Your task to perform on an android device: open app "Facebook" (install if not already installed), go to login, and select forgot password Image 0: 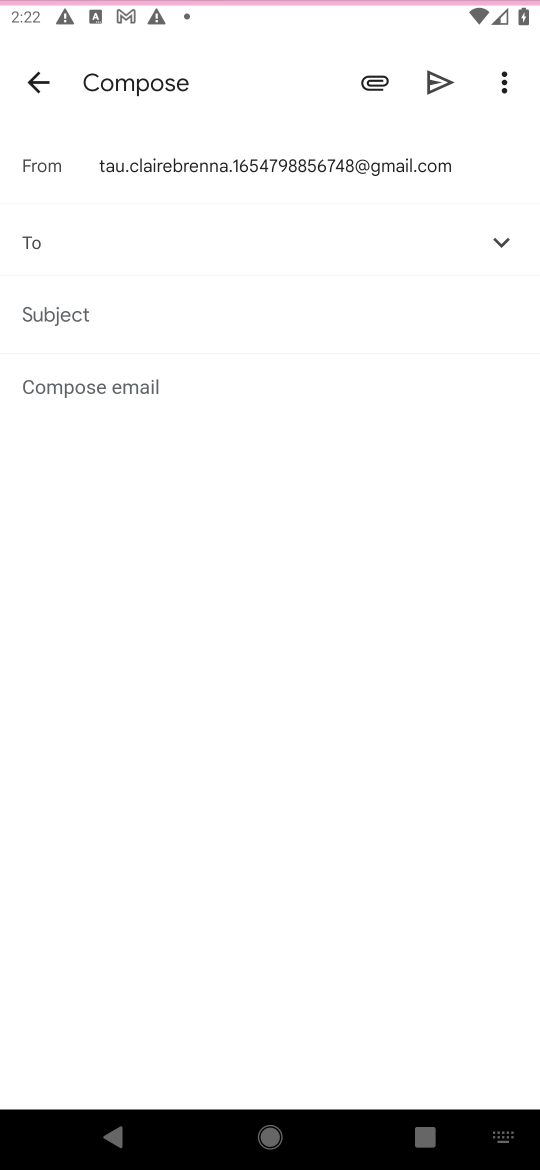
Step 0: press home button
Your task to perform on an android device: open app "Facebook" (install if not already installed), go to login, and select forgot password Image 1: 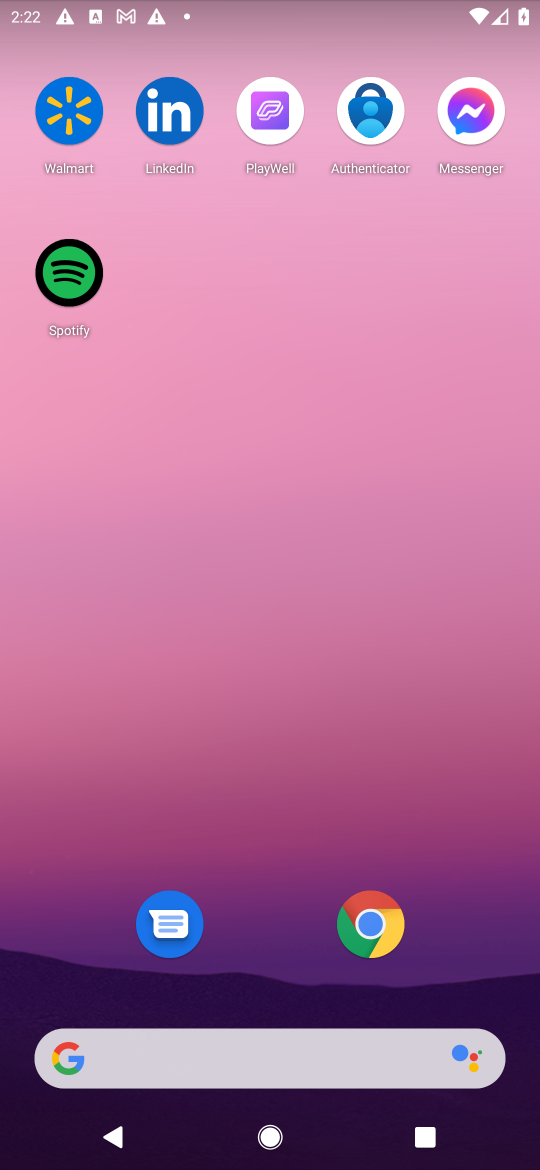
Step 1: drag from (466, 960) to (473, 193)
Your task to perform on an android device: open app "Facebook" (install if not already installed), go to login, and select forgot password Image 2: 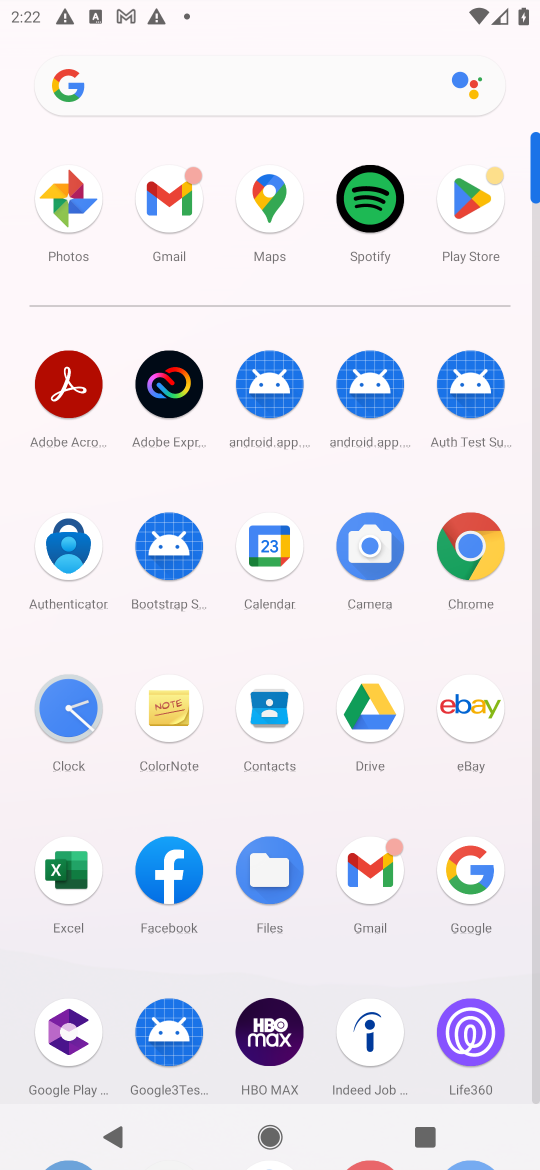
Step 2: click (467, 193)
Your task to perform on an android device: open app "Facebook" (install if not already installed), go to login, and select forgot password Image 3: 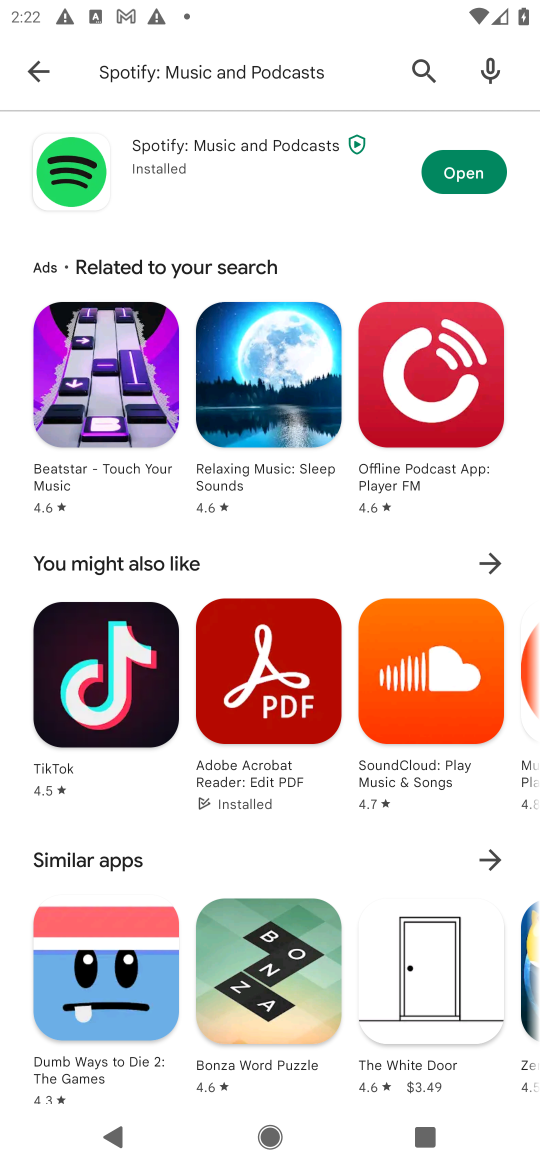
Step 3: press back button
Your task to perform on an android device: open app "Facebook" (install if not already installed), go to login, and select forgot password Image 4: 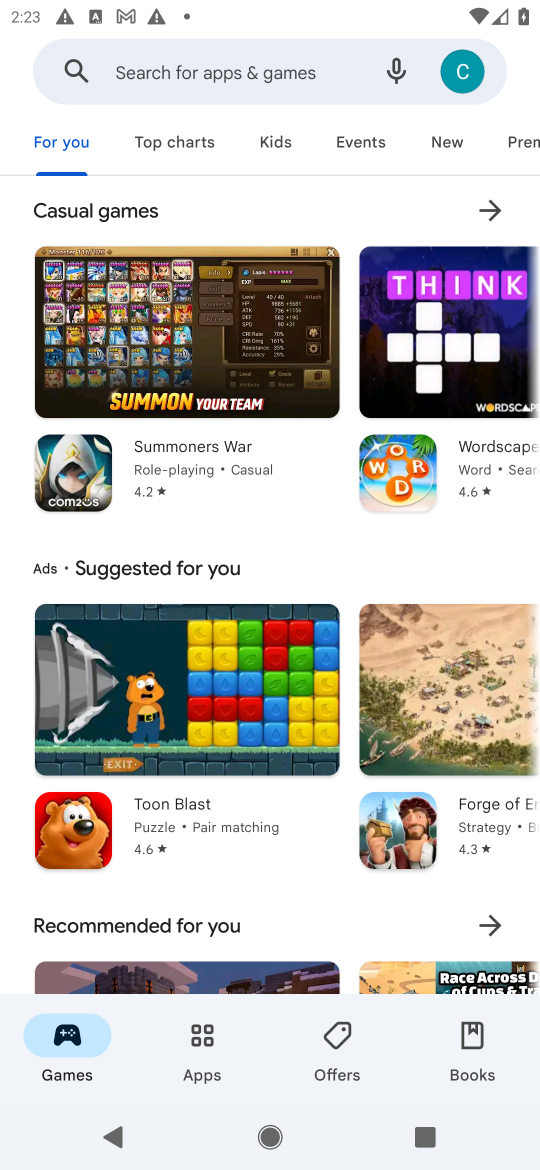
Step 4: click (198, 72)
Your task to perform on an android device: open app "Facebook" (install if not already installed), go to login, and select forgot password Image 5: 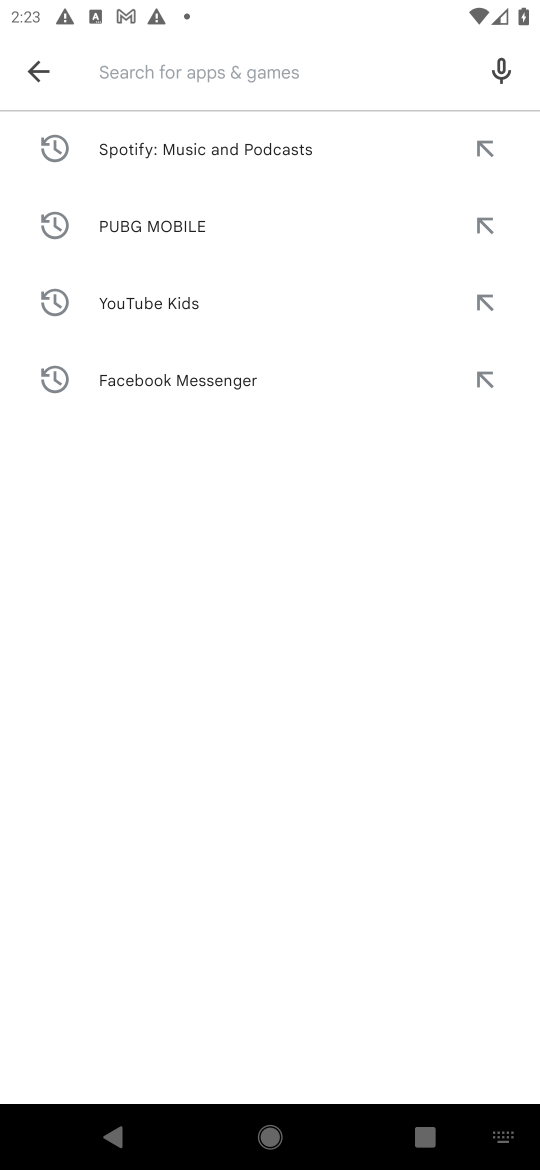
Step 5: press enter
Your task to perform on an android device: open app "Facebook" (install if not already installed), go to login, and select forgot password Image 6: 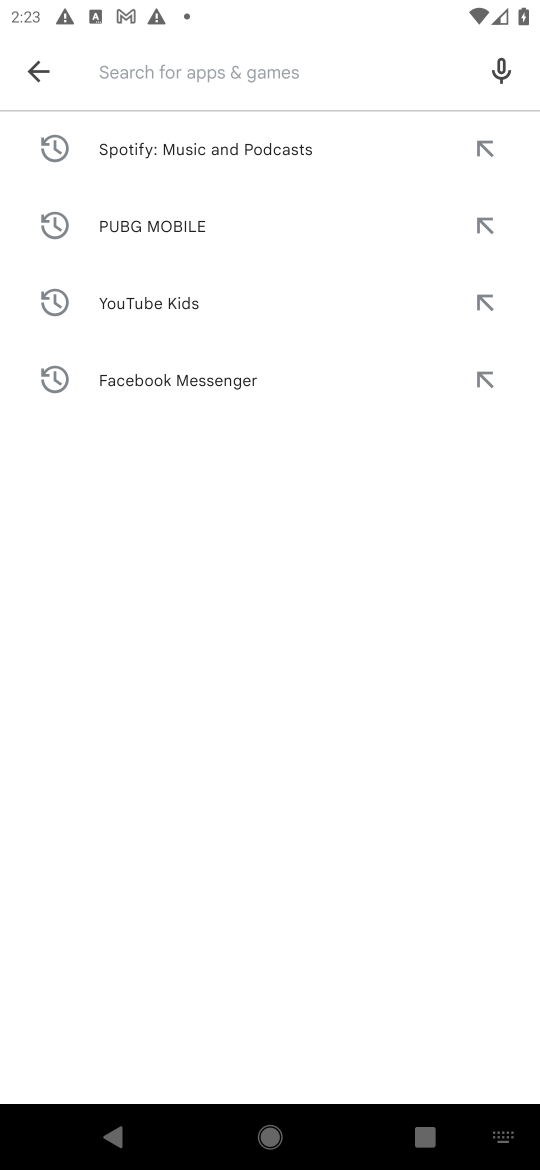
Step 6: type "facebook"
Your task to perform on an android device: open app "Facebook" (install if not already installed), go to login, and select forgot password Image 7: 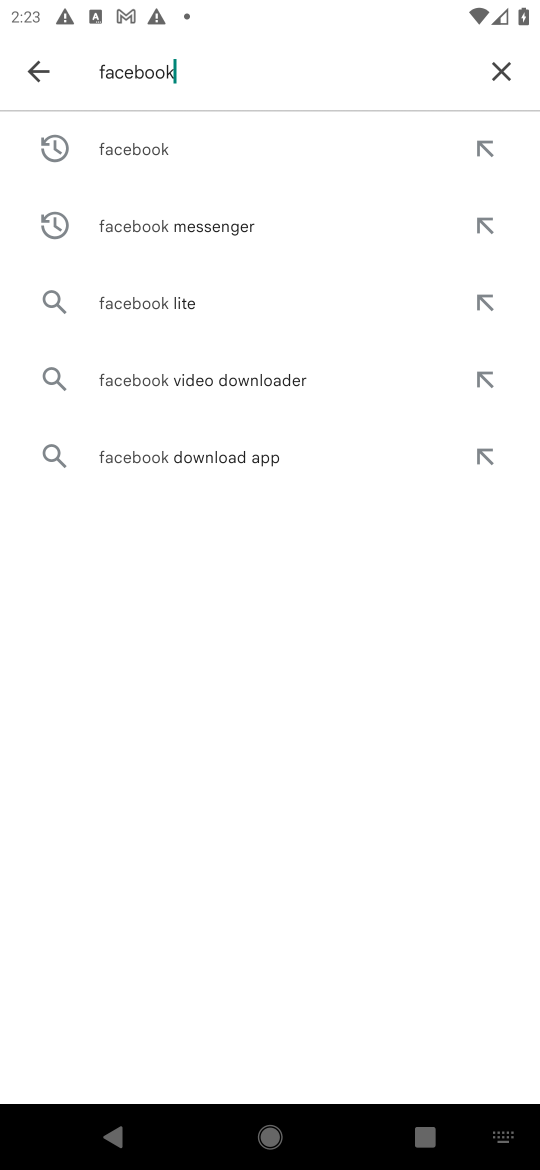
Step 7: click (222, 147)
Your task to perform on an android device: open app "Facebook" (install if not already installed), go to login, and select forgot password Image 8: 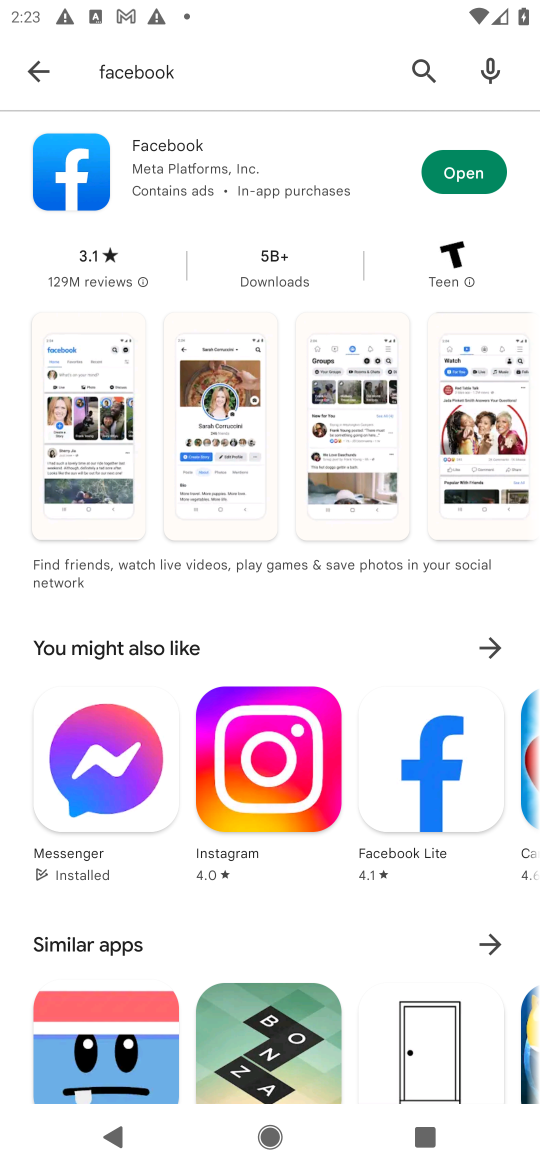
Step 8: click (482, 176)
Your task to perform on an android device: open app "Facebook" (install if not already installed), go to login, and select forgot password Image 9: 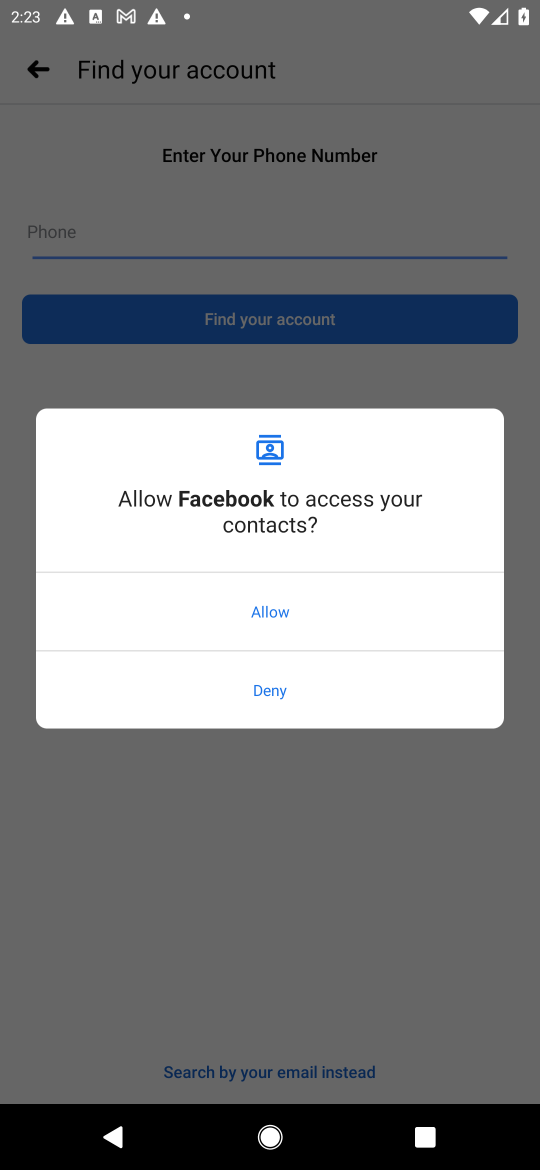
Step 9: click (272, 692)
Your task to perform on an android device: open app "Facebook" (install if not already installed), go to login, and select forgot password Image 10: 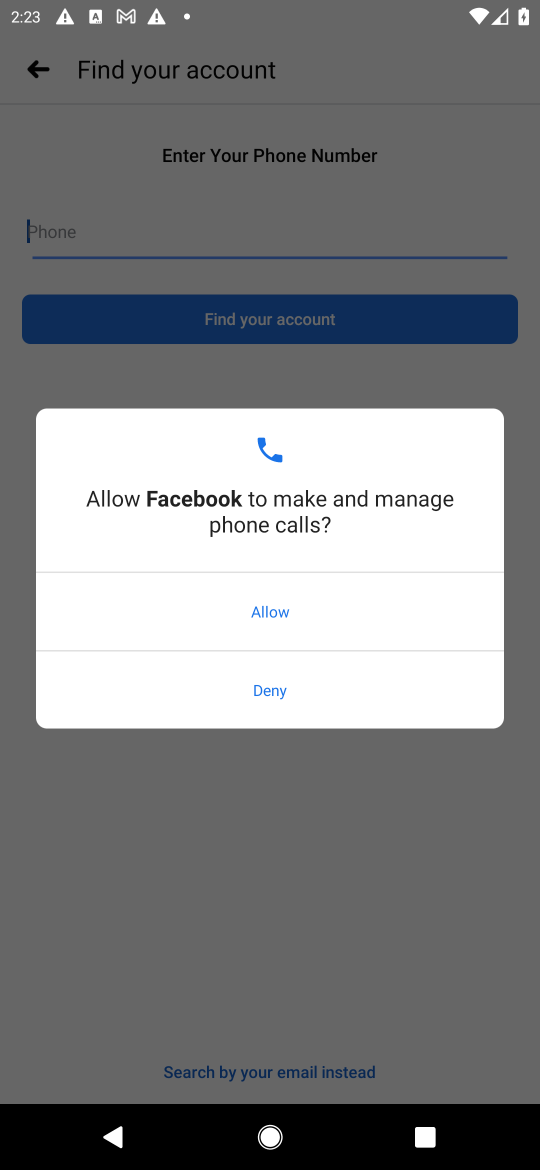
Step 10: click (279, 696)
Your task to perform on an android device: open app "Facebook" (install if not already installed), go to login, and select forgot password Image 11: 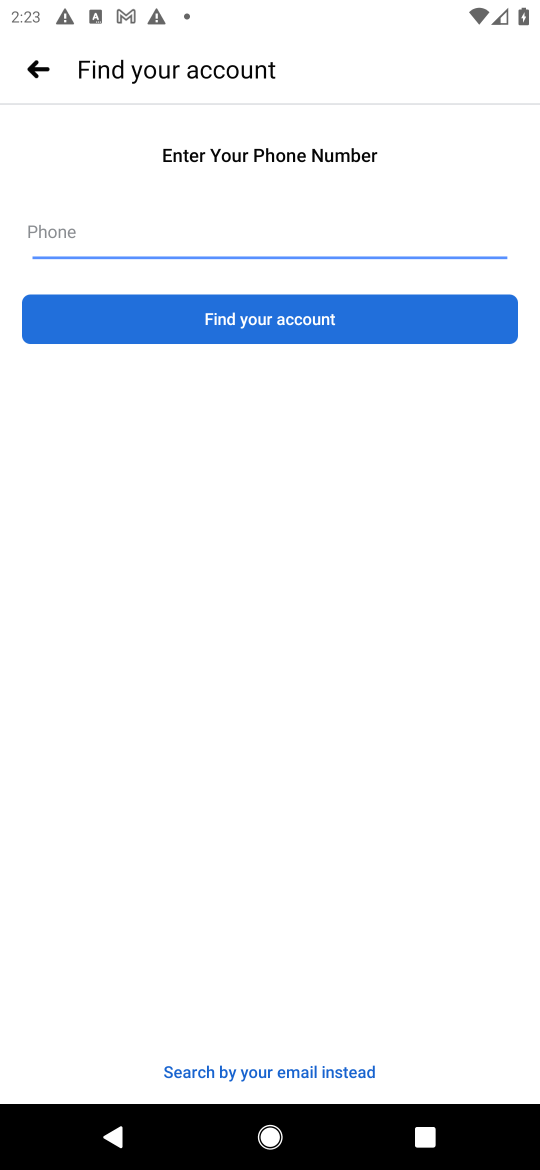
Step 11: press back button
Your task to perform on an android device: open app "Facebook" (install if not already installed), go to login, and select forgot password Image 12: 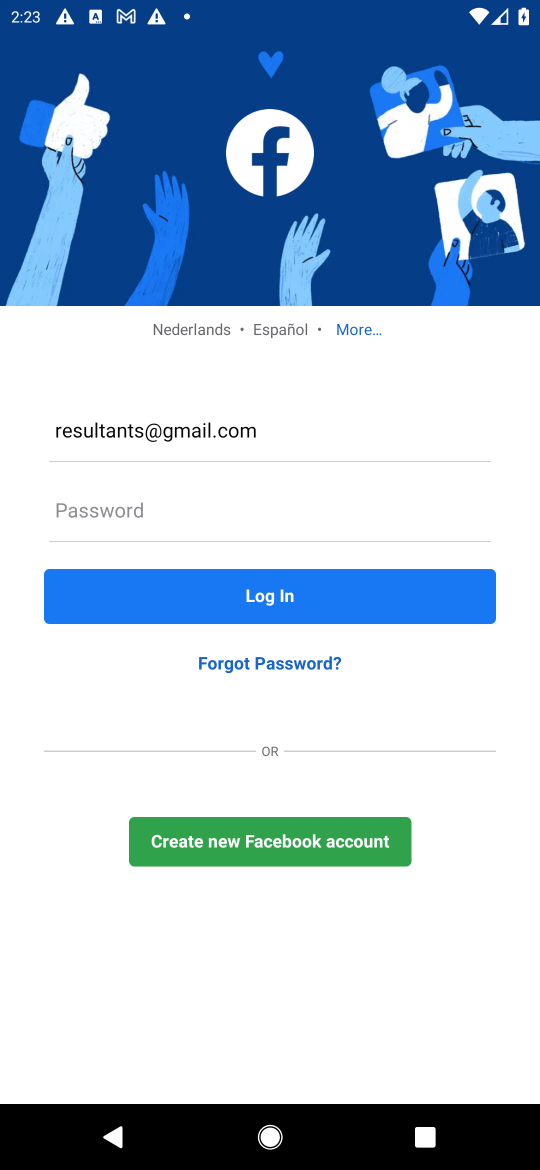
Step 12: click (271, 659)
Your task to perform on an android device: open app "Facebook" (install if not already installed), go to login, and select forgot password Image 13: 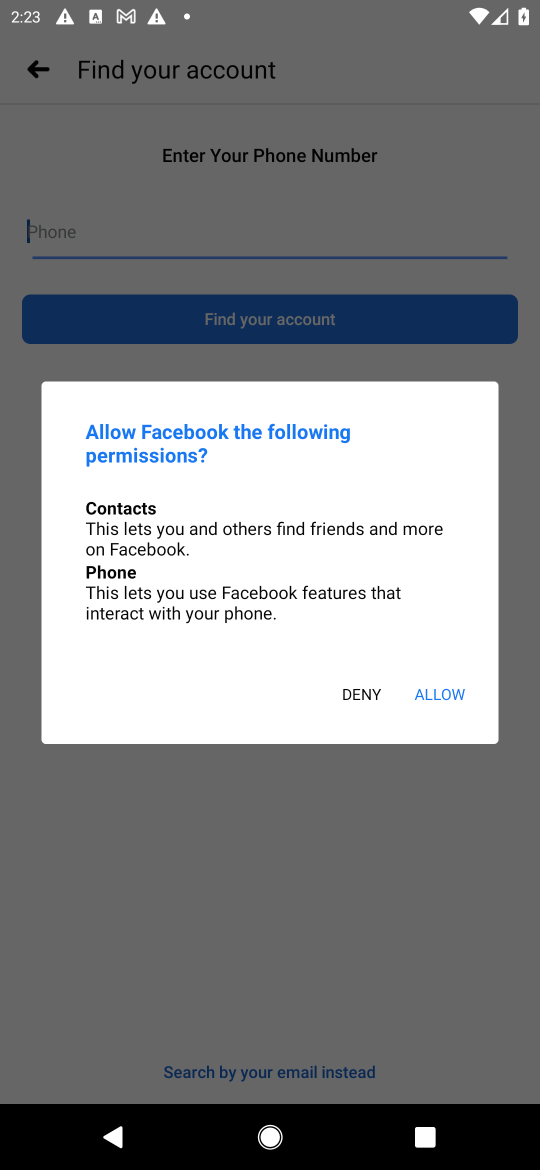
Step 13: task complete